Your task to perform on an android device: check data usage Image 0: 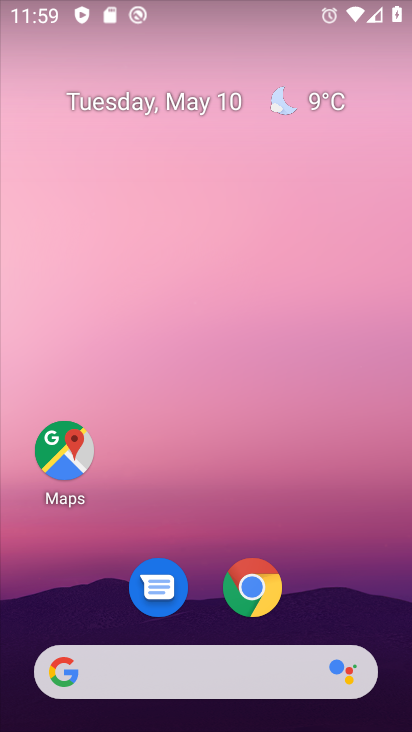
Step 0: drag from (362, 624) to (363, 211)
Your task to perform on an android device: check data usage Image 1: 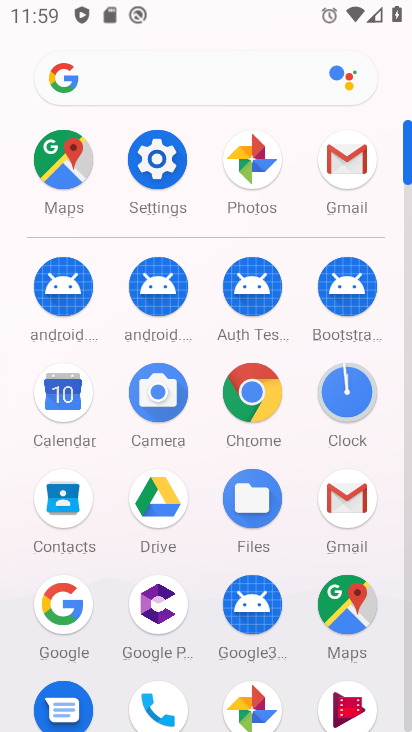
Step 1: click (153, 152)
Your task to perform on an android device: check data usage Image 2: 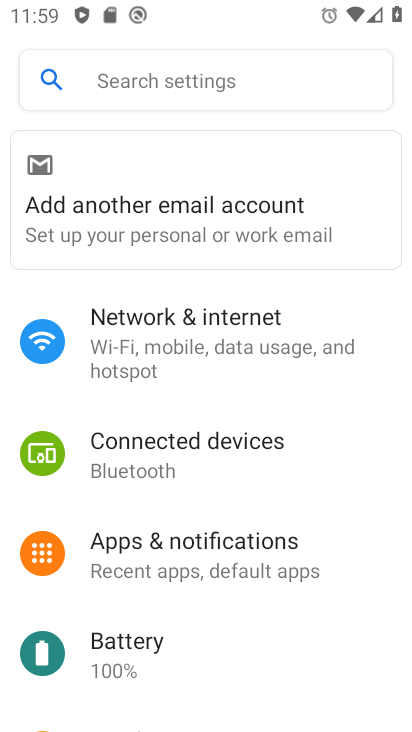
Step 2: click (181, 358)
Your task to perform on an android device: check data usage Image 3: 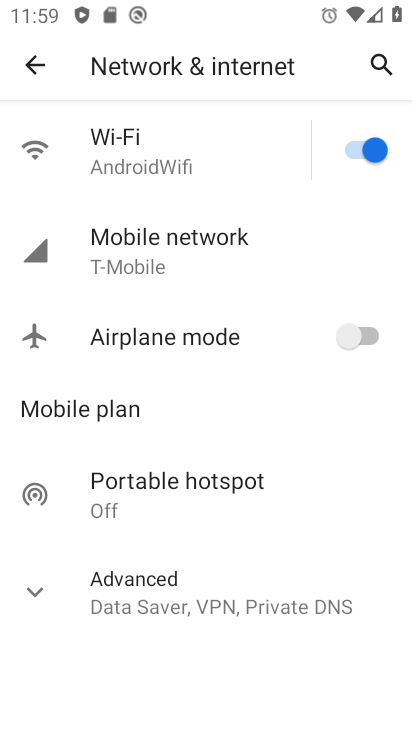
Step 3: click (125, 252)
Your task to perform on an android device: check data usage Image 4: 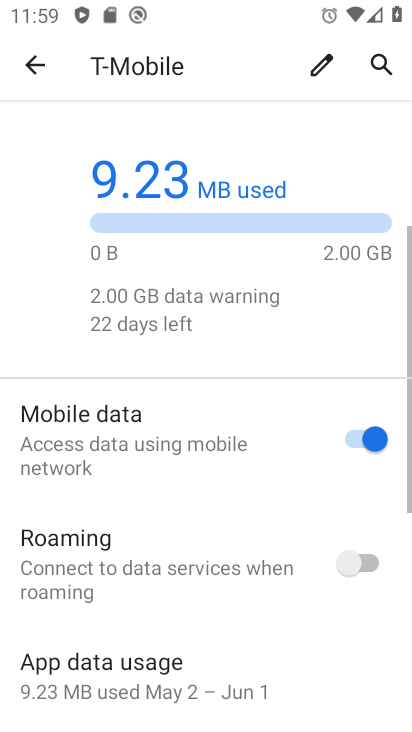
Step 4: drag from (228, 531) to (211, 177)
Your task to perform on an android device: check data usage Image 5: 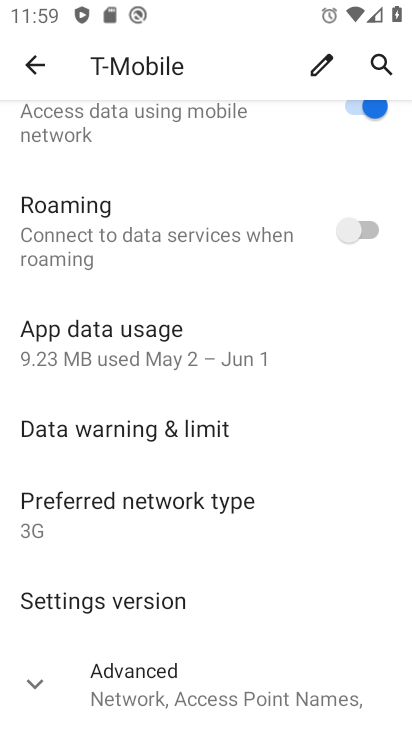
Step 5: click (118, 352)
Your task to perform on an android device: check data usage Image 6: 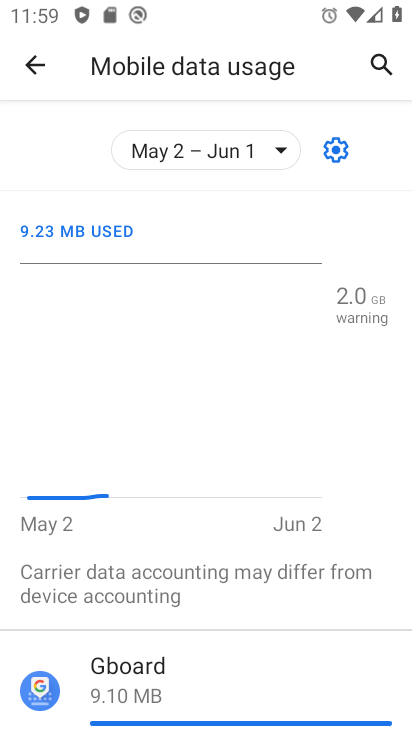
Step 6: task complete